Your task to perform on an android device: Open Chrome and go to settings Image 0: 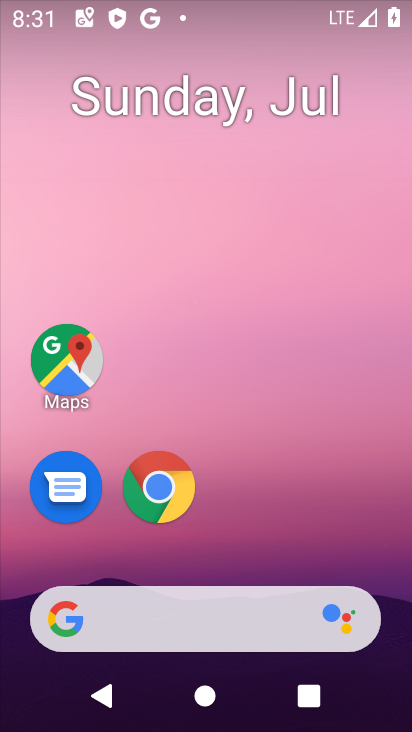
Step 0: click (153, 488)
Your task to perform on an android device: Open Chrome and go to settings Image 1: 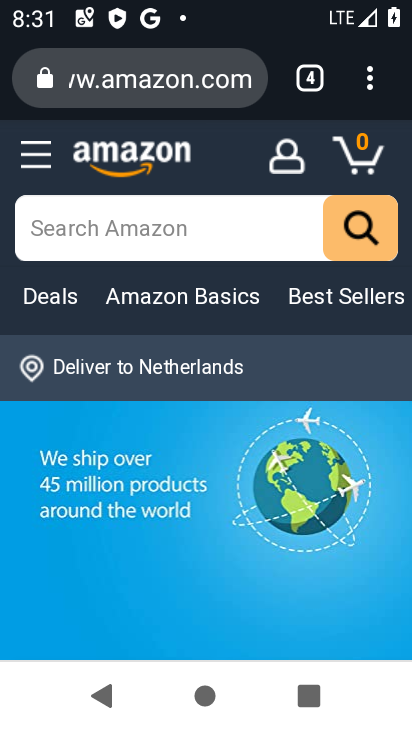
Step 1: task complete